Your task to perform on an android device: change the clock display to show seconds Image 0: 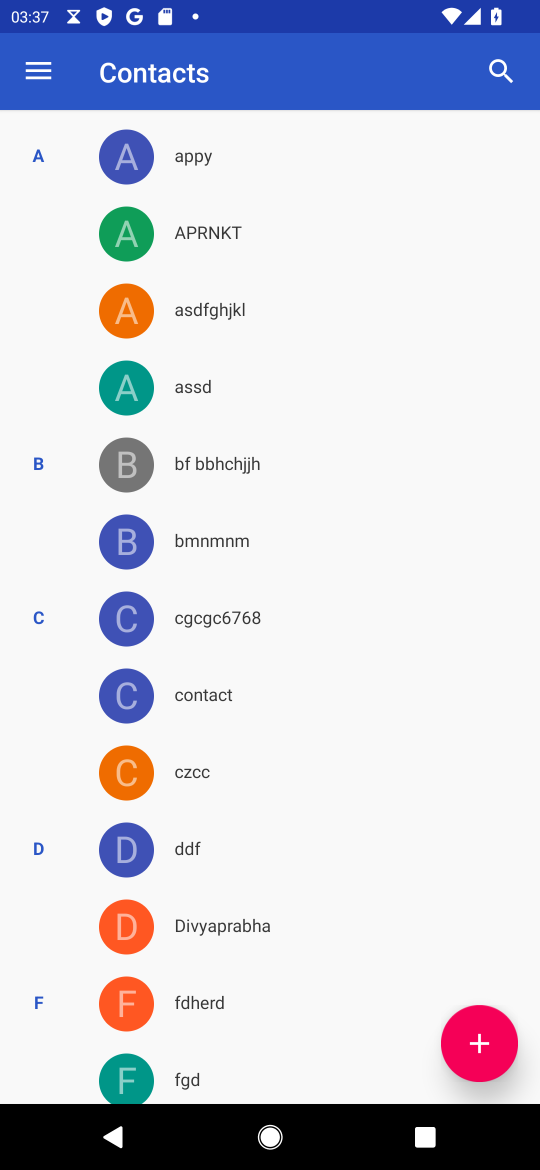
Step 0: press home button
Your task to perform on an android device: change the clock display to show seconds Image 1: 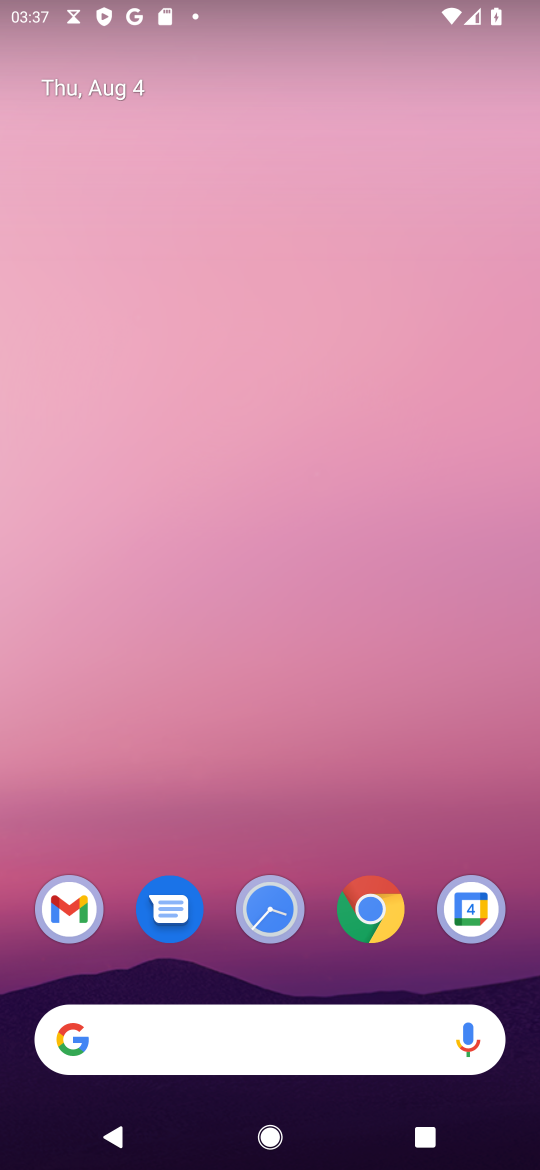
Step 1: click (264, 912)
Your task to perform on an android device: change the clock display to show seconds Image 2: 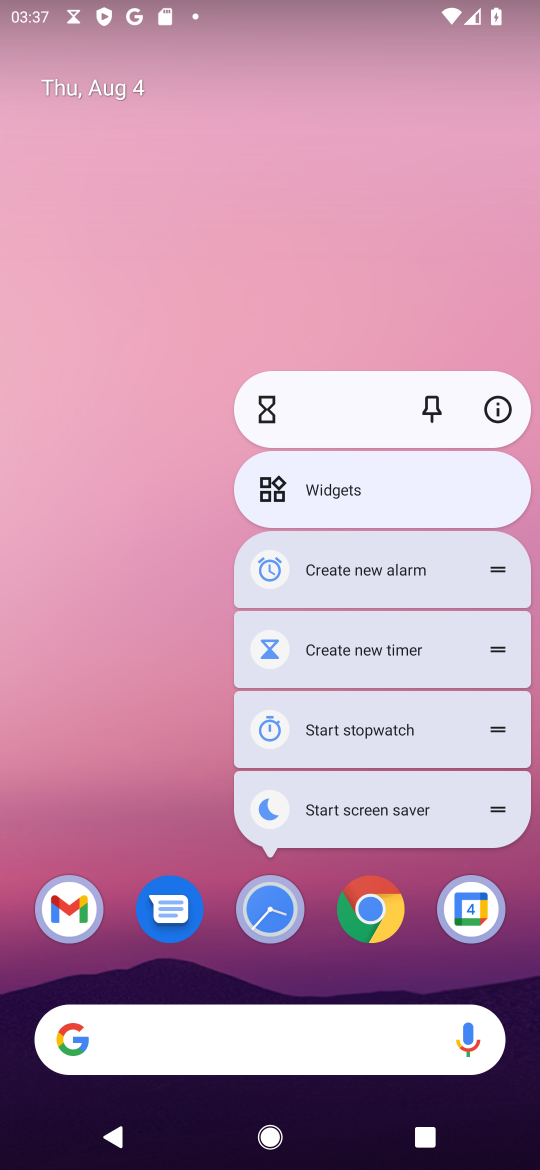
Step 2: click (273, 915)
Your task to perform on an android device: change the clock display to show seconds Image 3: 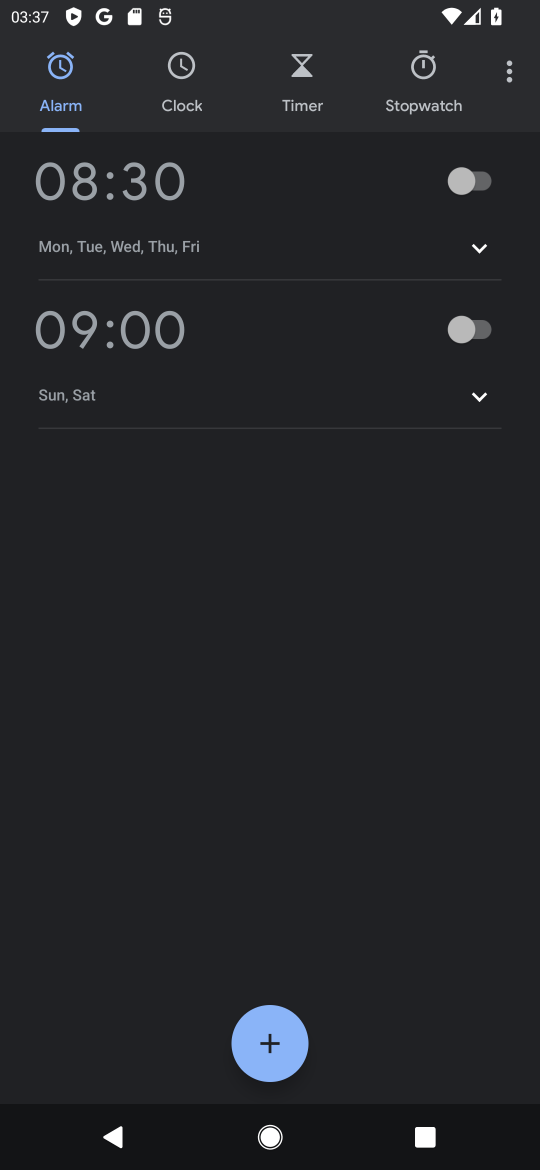
Step 3: click (502, 88)
Your task to perform on an android device: change the clock display to show seconds Image 4: 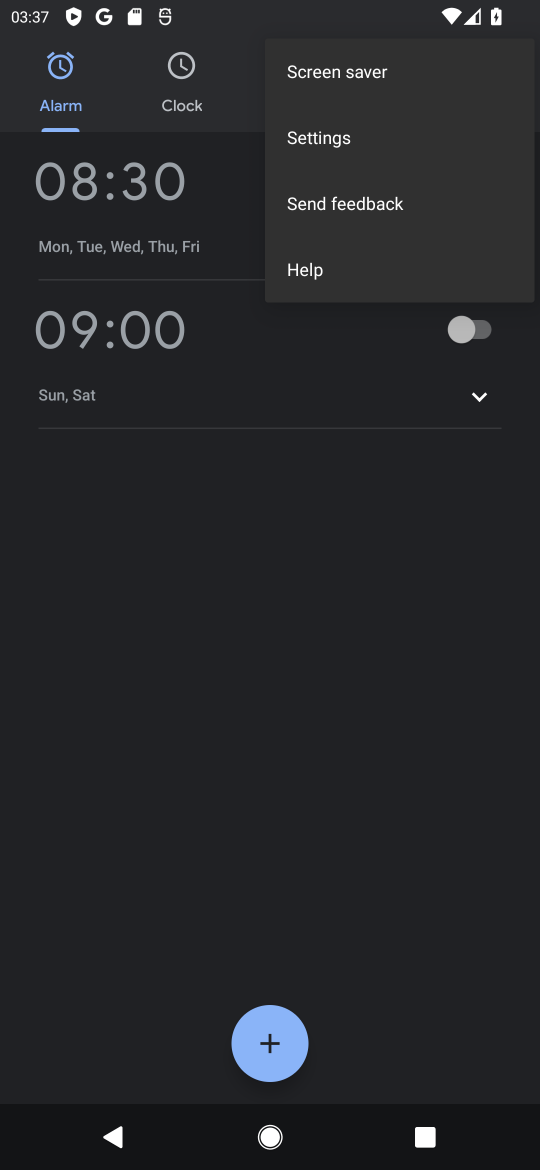
Step 4: click (347, 148)
Your task to perform on an android device: change the clock display to show seconds Image 5: 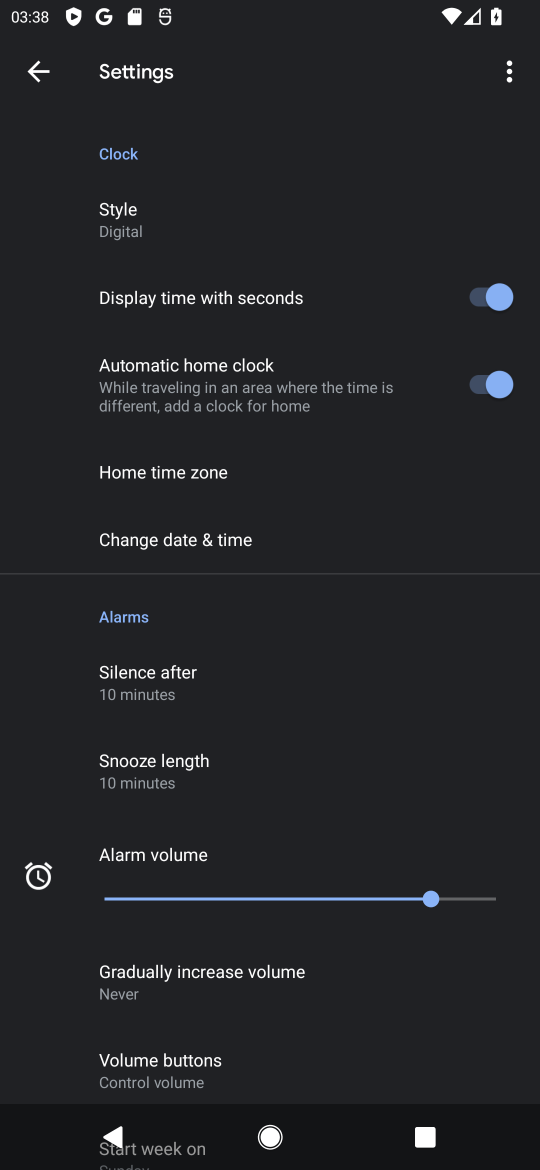
Step 5: task complete